Your task to perform on an android device: find photos in the google photos app Image 0: 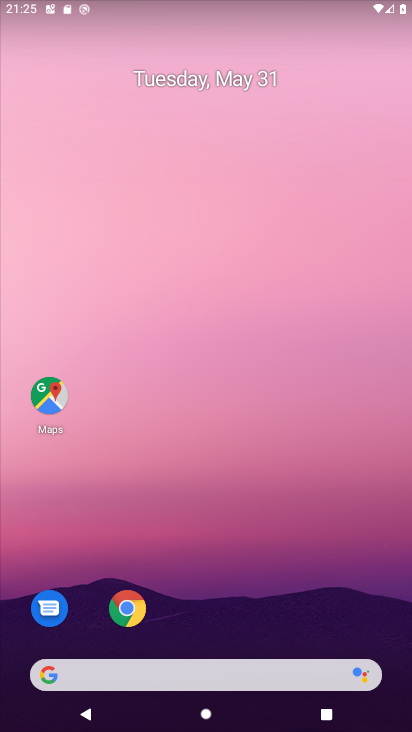
Step 0: drag from (271, 604) to (220, 32)
Your task to perform on an android device: find photos in the google photos app Image 1: 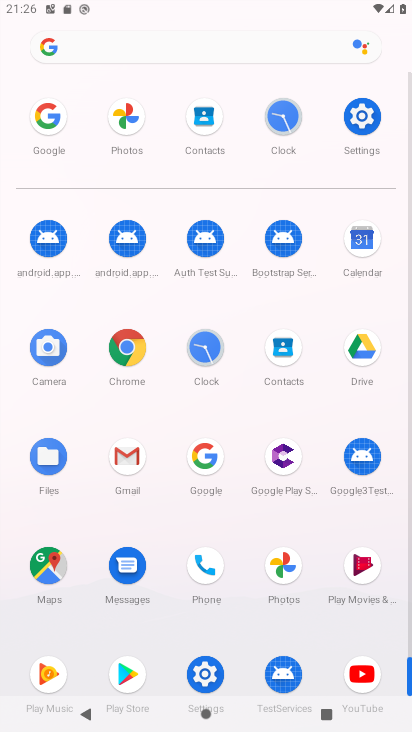
Step 1: click (127, 118)
Your task to perform on an android device: find photos in the google photos app Image 2: 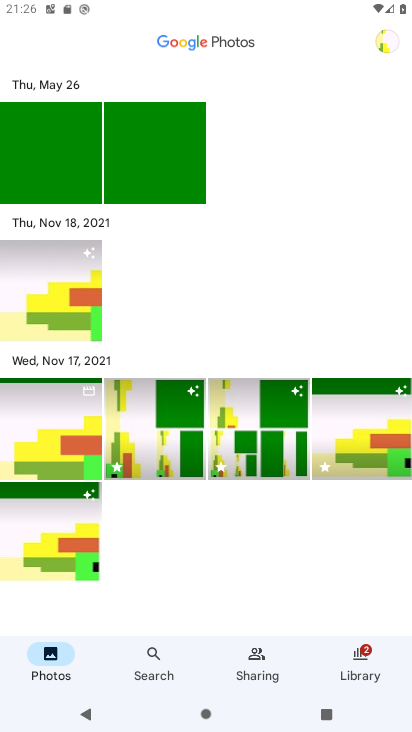
Step 2: click (53, 261)
Your task to perform on an android device: find photos in the google photos app Image 3: 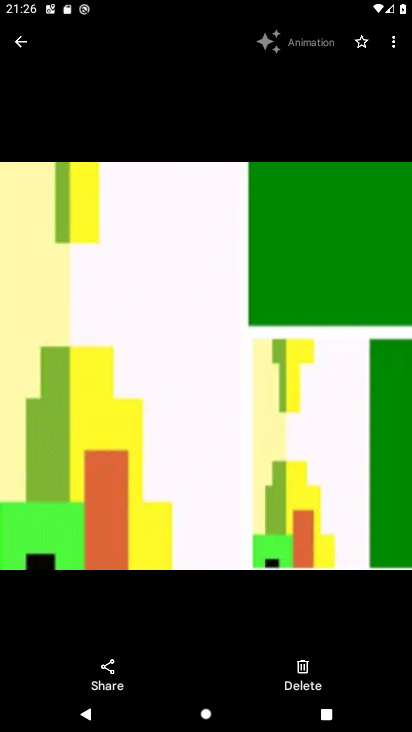
Step 3: task complete